Your task to perform on an android device: Go to Wikipedia Image 0: 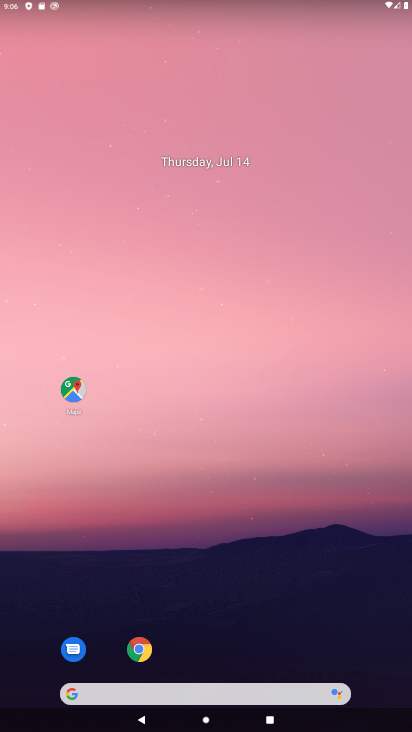
Step 0: click (151, 652)
Your task to perform on an android device: Go to Wikipedia Image 1: 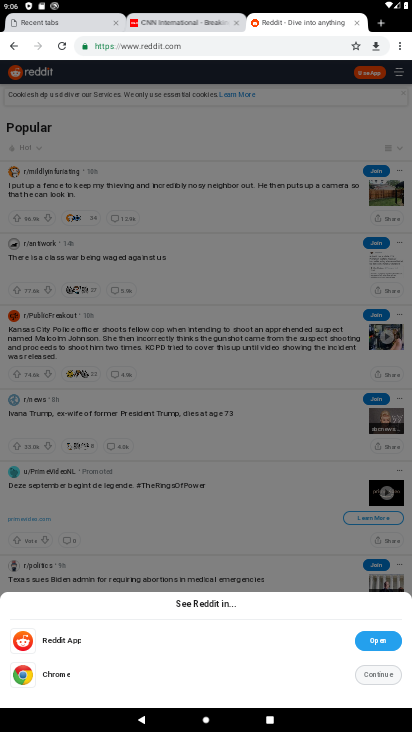
Step 1: click (377, 19)
Your task to perform on an android device: Go to Wikipedia Image 2: 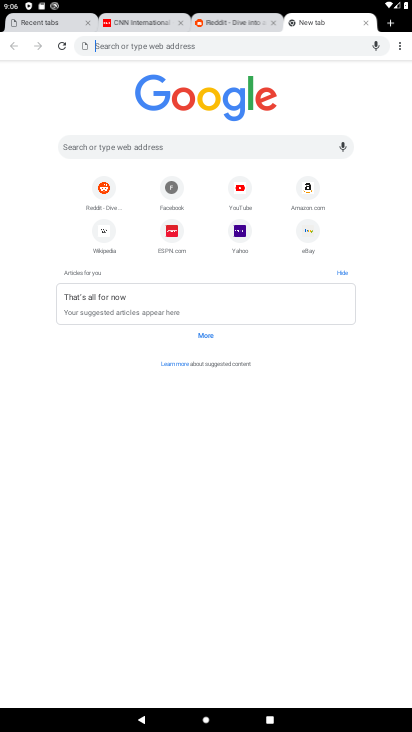
Step 2: click (96, 240)
Your task to perform on an android device: Go to Wikipedia Image 3: 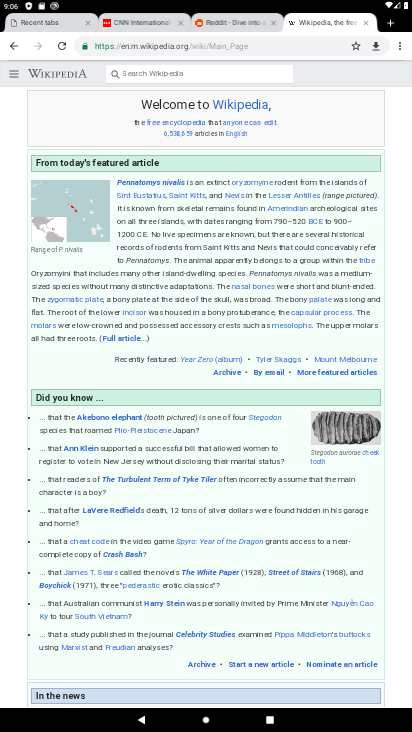
Step 3: task complete